Your task to perform on an android device: Go to Reddit.com Image 0: 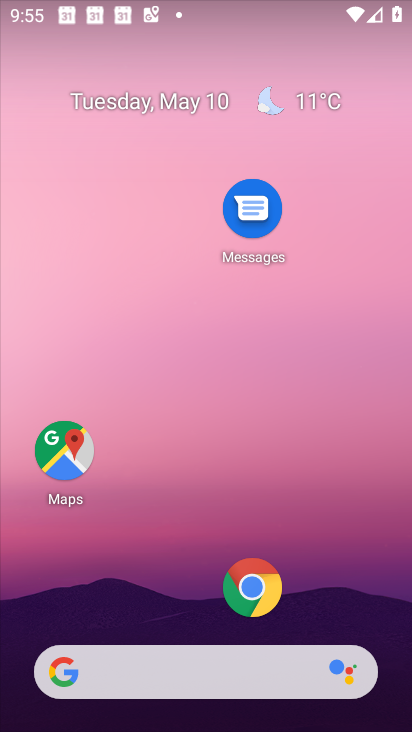
Step 0: click (289, 360)
Your task to perform on an android device: Go to Reddit.com Image 1: 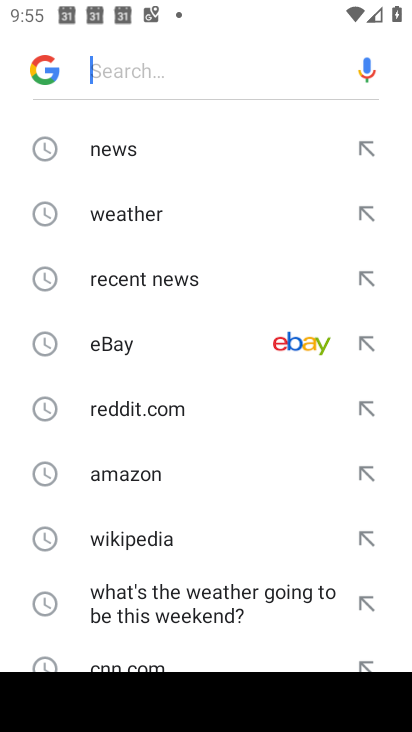
Step 1: press home button
Your task to perform on an android device: Go to Reddit.com Image 2: 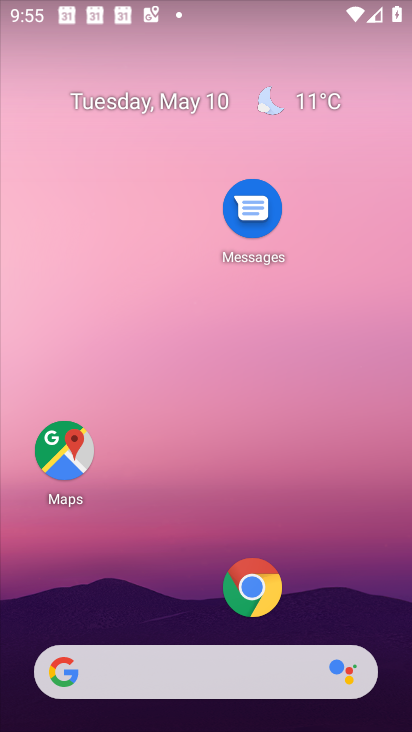
Step 2: click (350, 594)
Your task to perform on an android device: Go to Reddit.com Image 3: 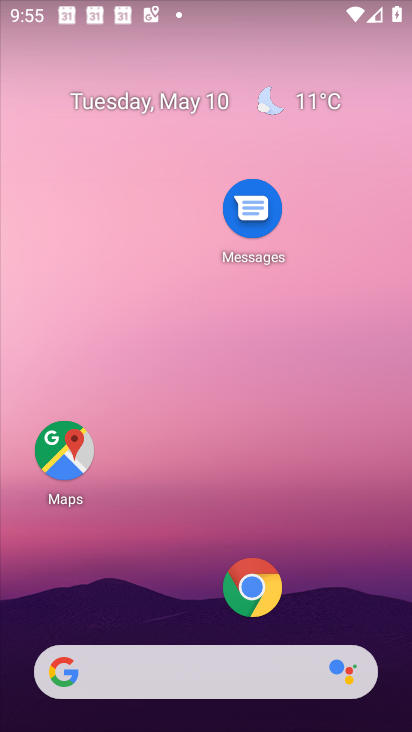
Step 3: click (251, 584)
Your task to perform on an android device: Go to Reddit.com Image 4: 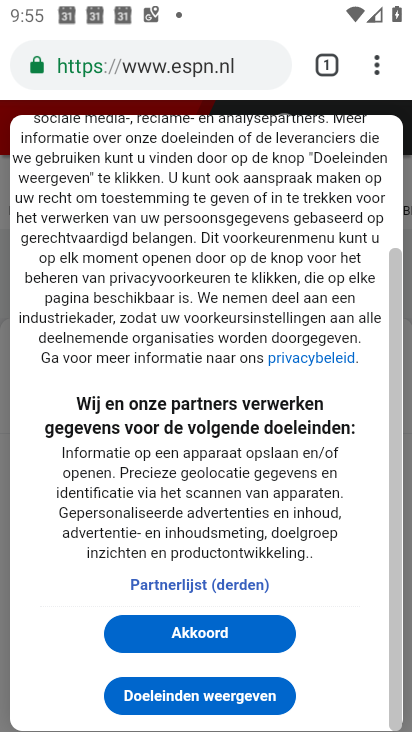
Step 4: click (163, 62)
Your task to perform on an android device: Go to Reddit.com Image 5: 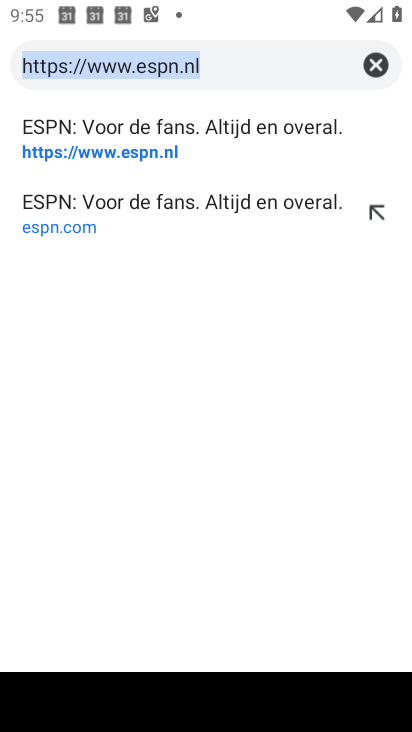
Step 5: type "Reddit.com"
Your task to perform on an android device: Go to Reddit.com Image 6: 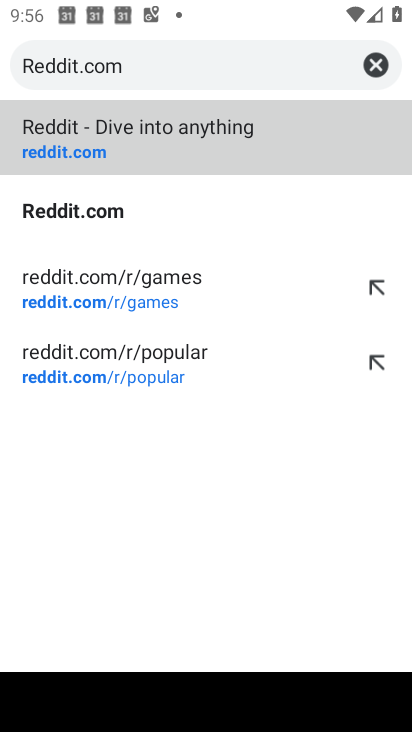
Step 6: click (111, 236)
Your task to perform on an android device: Go to Reddit.com Image 7: 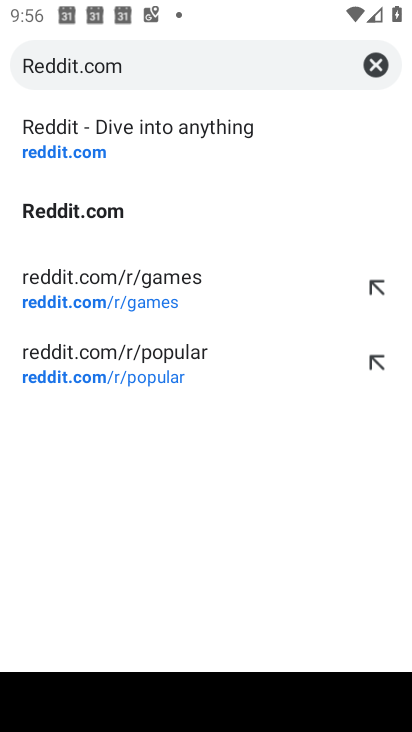
Step 7: click (110, 220)
Your task to perform on an android device: Go to Reddit.com Image 8: 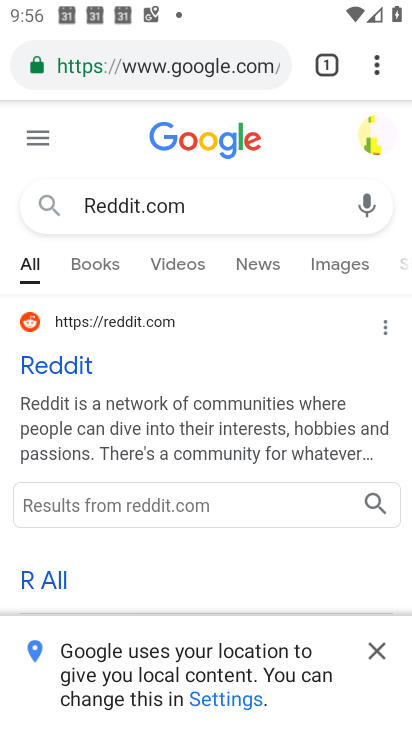
Step 8: task complete